Your task to perform on an android device: What's on my calendar today? Image 0: 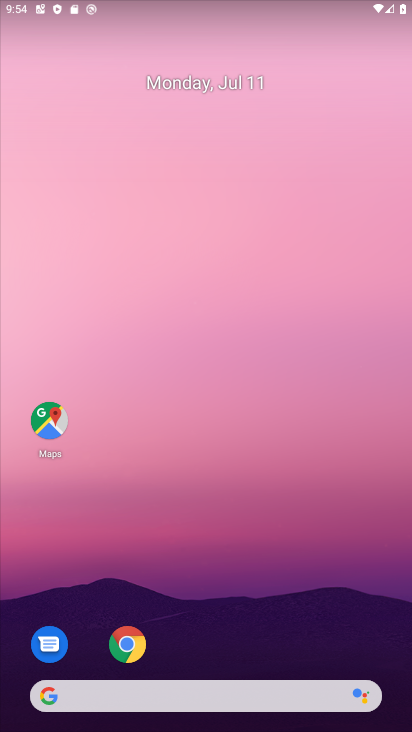
Step 0: press home button
Your task to perform on an android device: What's on my calendar today? Image 1: 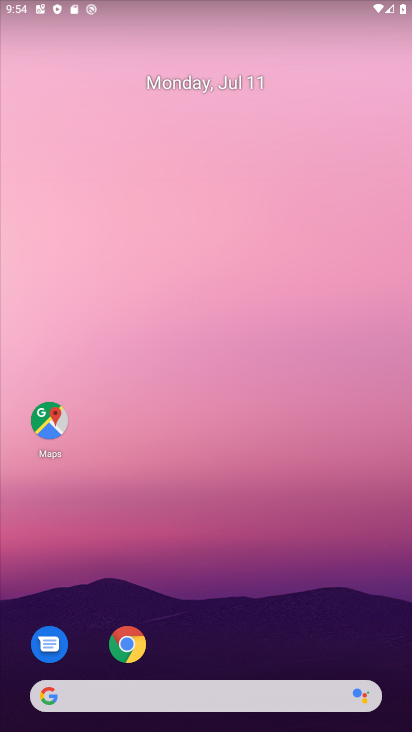
Step 1: drag from (210, 659) to (282, 0)
Your task to perform on an android device: What's on my calendar today? Image 2: 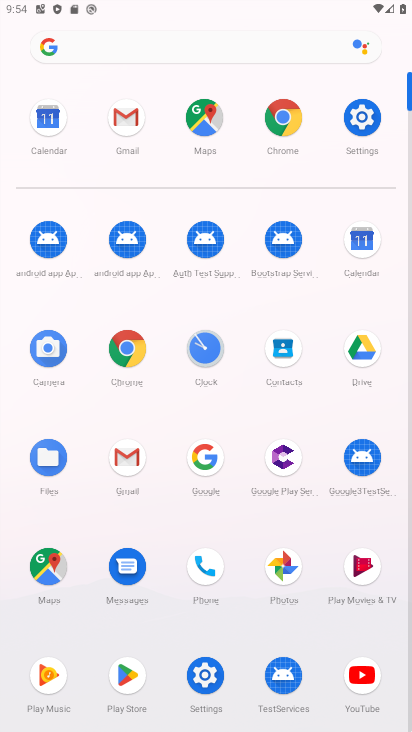
Step 2: click (362, 236)
Your task to perform on an android device: What's on my calendar today? Image 3: 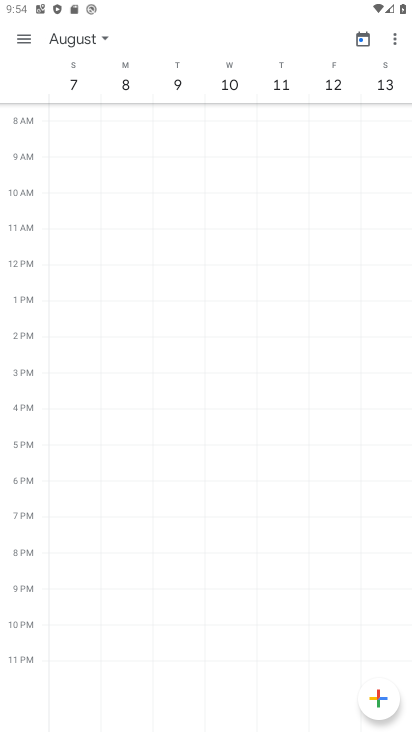
Step 3: click (21, 35)
Your task to perform on an android device: What's on my calendar today? Image 4: 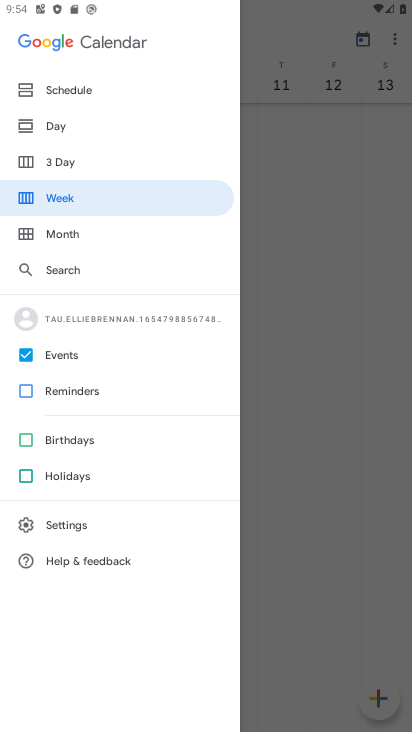
Step 4: click (50, 119)
Your task to perform on an android device: What's on my calendar today? Image 5: 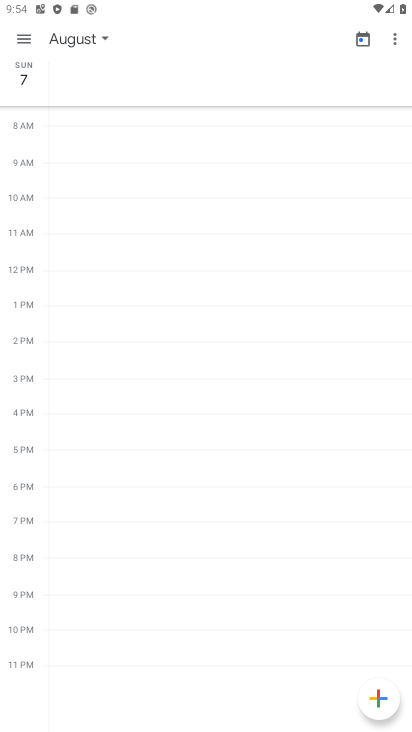
Step 5: click (101, 37)
Your task to perform on an android device: What's on my calendar today? Image 6: 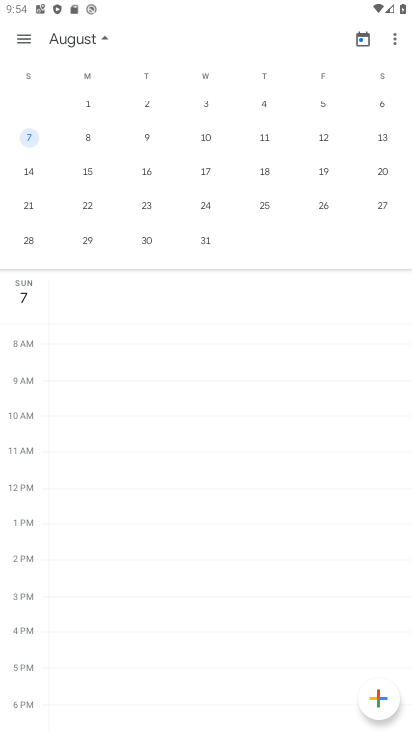
Step 6: drag from (36, 192) to (371, 194)
Your task to perform on an android device: What's on my calendar today? Image 7: 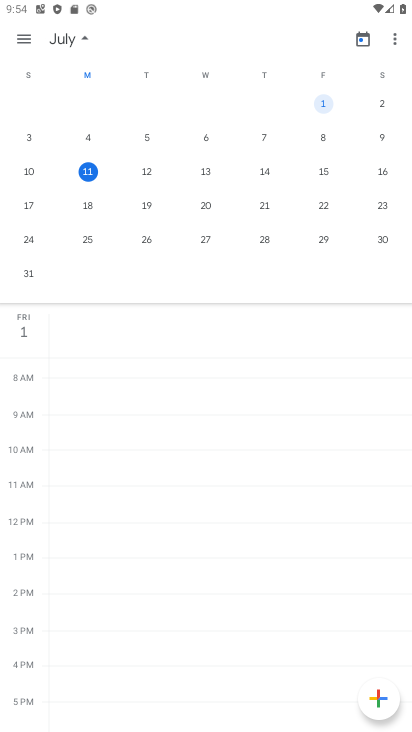
Step 7: click (89, 170)
Your task to perform on an android device: What's on my calendar today? Image 8: 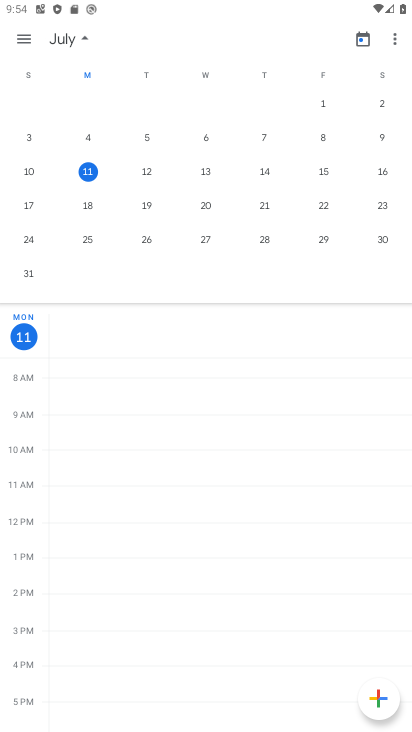
Step 8: click (80, 34)
Your task to perform on an android device: What's on my calendar today? Image 9: 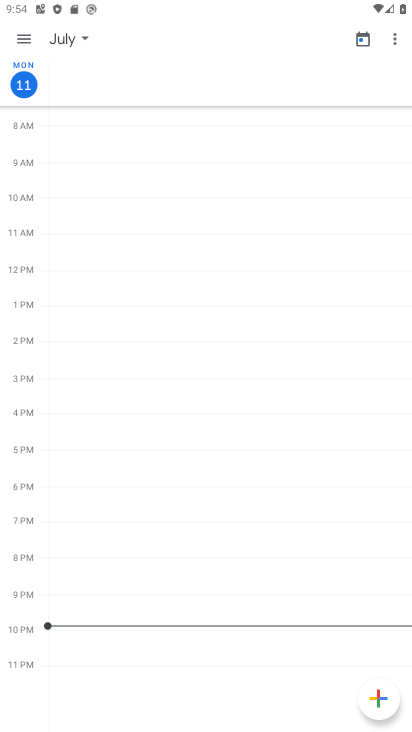
Step 9: task complete